Your task to perform on an android device: change notification settings in the gmail app Image 0: 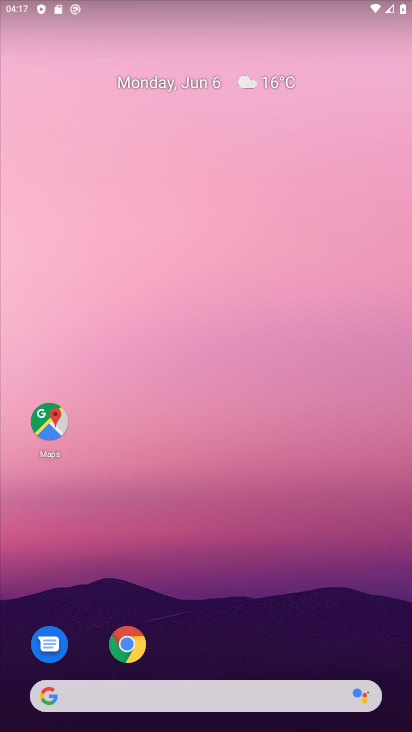
Step 0: drag from (397, 682) to (356, 194)
Your task to perform on an android device: change notification settings in the gmail app Image 1: 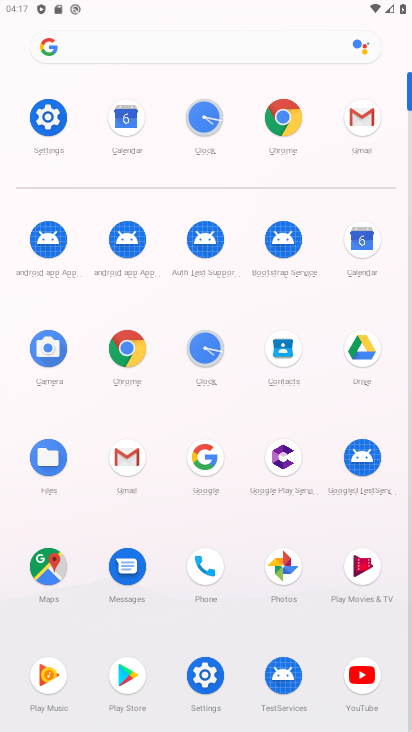
Step 1: click (359, 118)
Your task to perform on an android device: change notification settings in the gmail app Image 2: 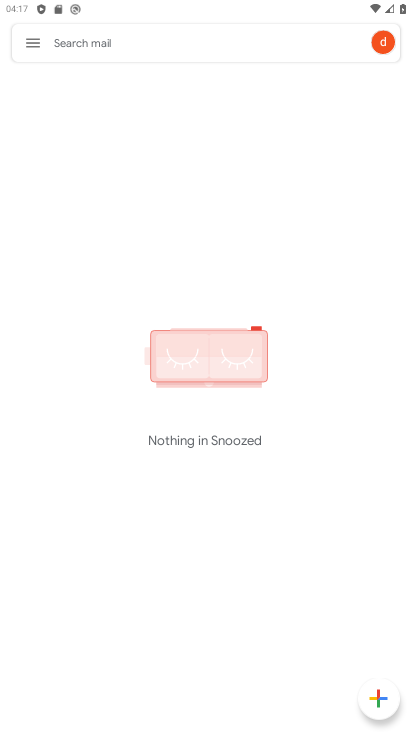
Step 2: click (27, 41)
Your task to perform on an android device: change notification settings in the gmail app Image 3: 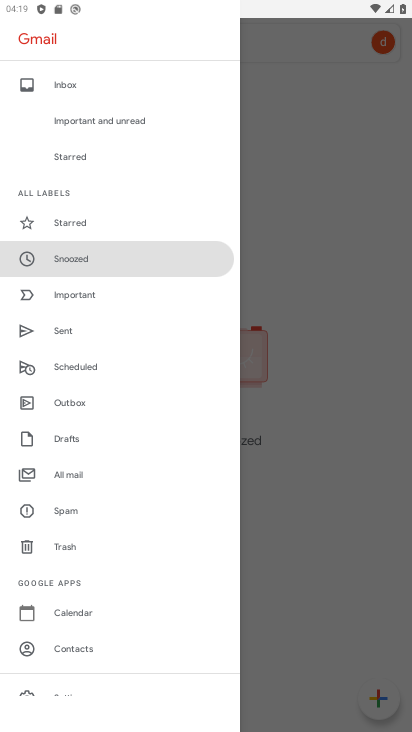
Step 3: click (120, 460)
Your task to perform on an android device: change notification settings in the gmail app Image 4: 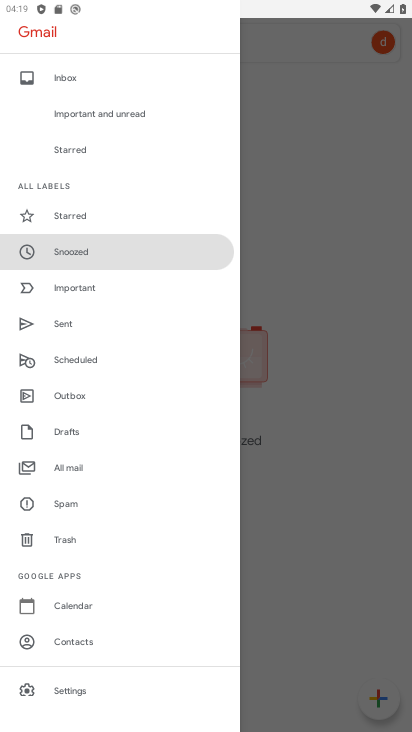
Step 4: click (80, 680)
Your task to perform on an android device: change notification settings in the gmail app Image 5: 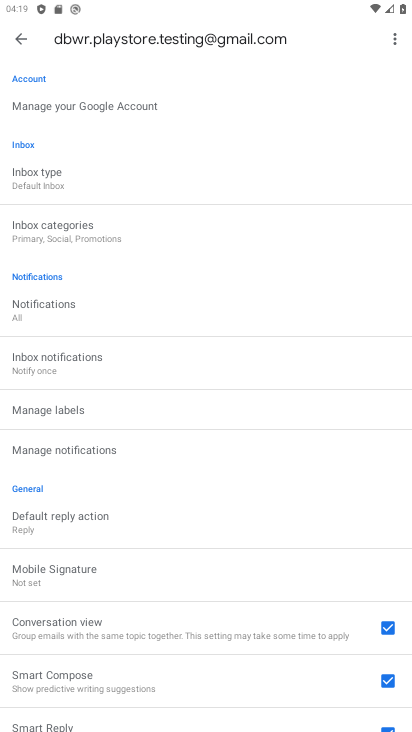
Step 5: click (65, 302)
Your task to perform on an android device: change notification settings in the gmail app Image 6: 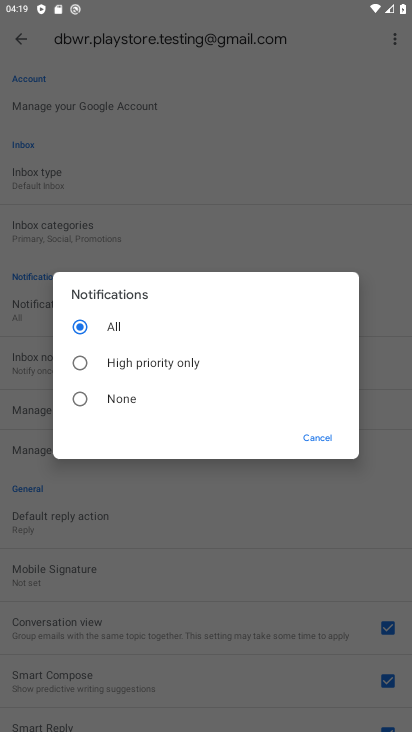
Step 6: click (331, 429)
Your task to perform on an android device: change notification settings in the gmail app Image 7: 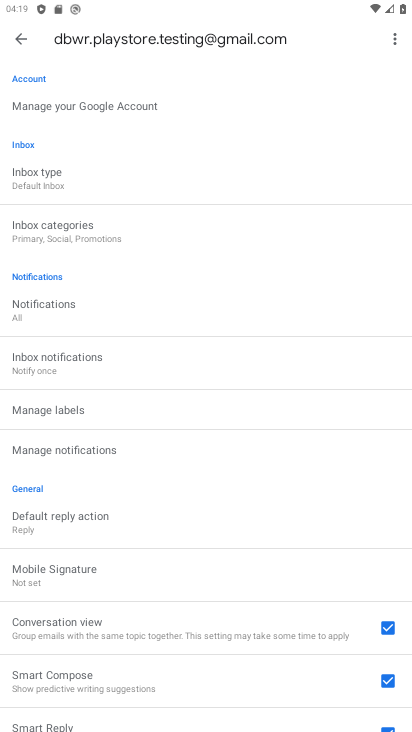
Step 7: click (26, 38)
Your task to perform on an android device: change notification settings in the gmail app Image 8: 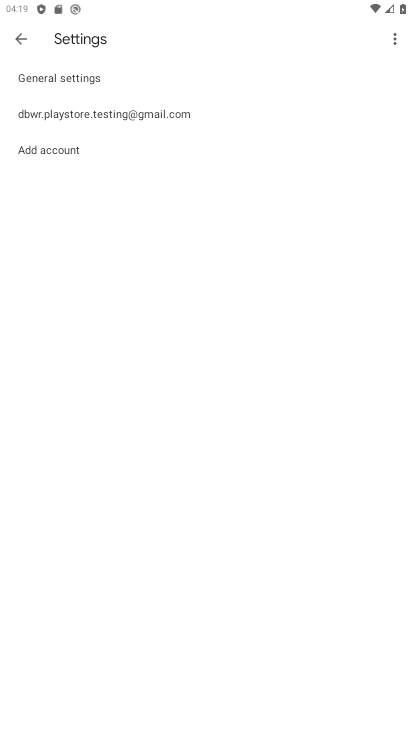
Step 8: click (57, 70)
Your task to perform on an android device: change notification settings in the gmail app Image 9: 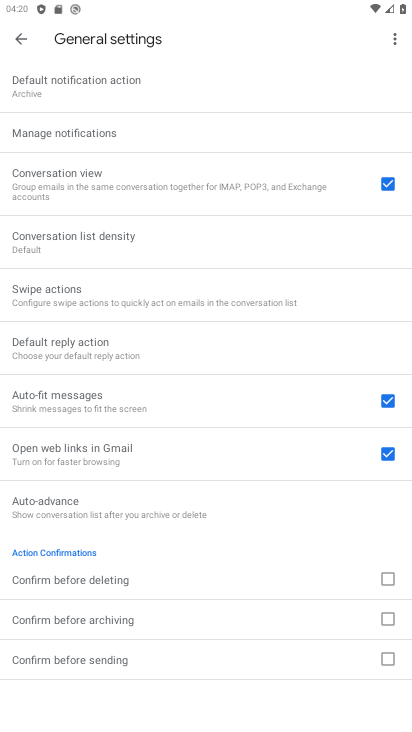
Step 9: click (56, 125)
Your task to perform on an android device: change notification settings in the gmail app Image 10: 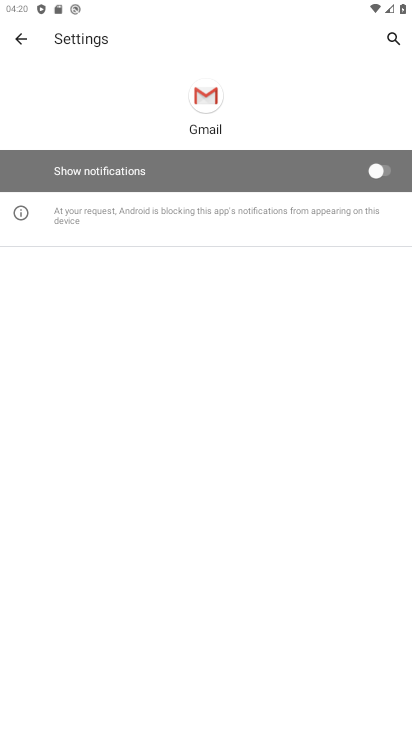
Step 10: click (387, 172)
Your task to perform on an android device: change notification settings in the gmail app Image 11: 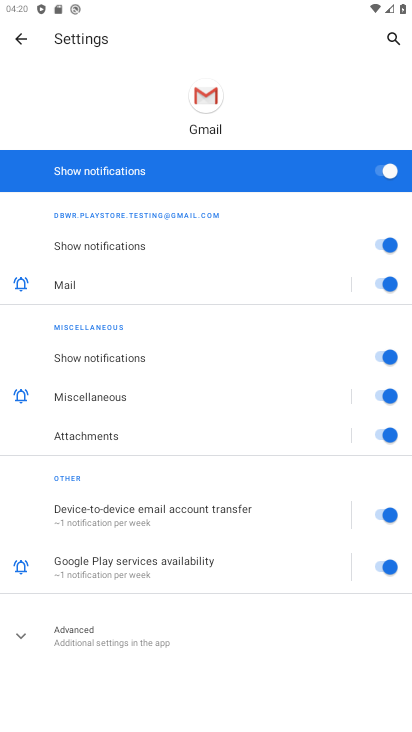
Step 11: task complete